Your task to perform on an android device: read, delete, or share a saved page in the chrome app Image 0: 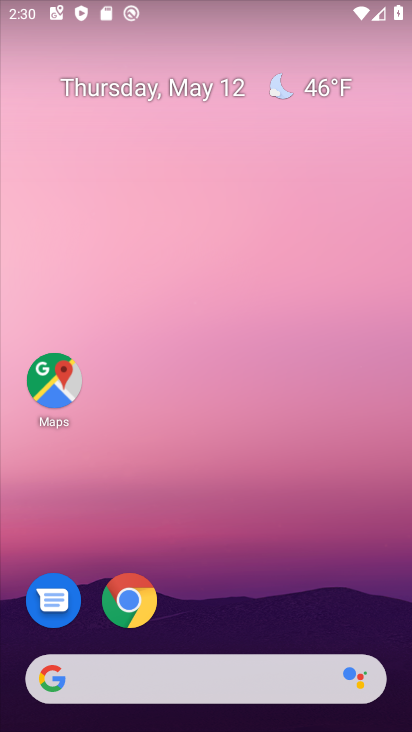
Step 0: click (141, 598)
Your task to perform on an android device: read, delete, or share a saved page in the chrome app Image 1: 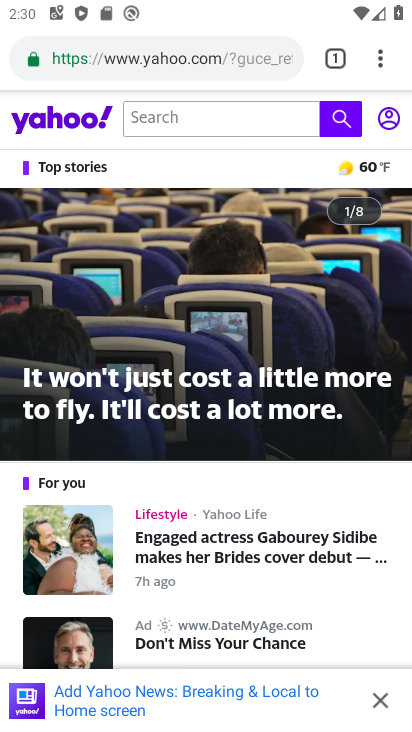
Step 1: click (374, 58)
Your task to perform on an android device: read, delete, or share a saved page in the chrome app Image 2: 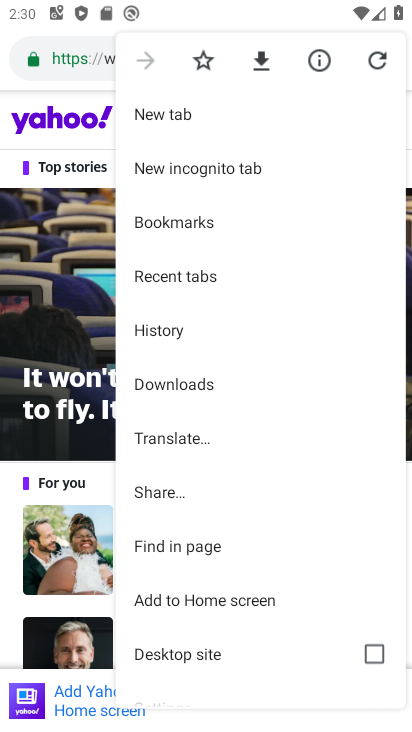
Step 2: drag from (165, 616) to (267, 270)
Your task to perform on an android device: read, delete, or share a saved page in the chrome app Image 3: 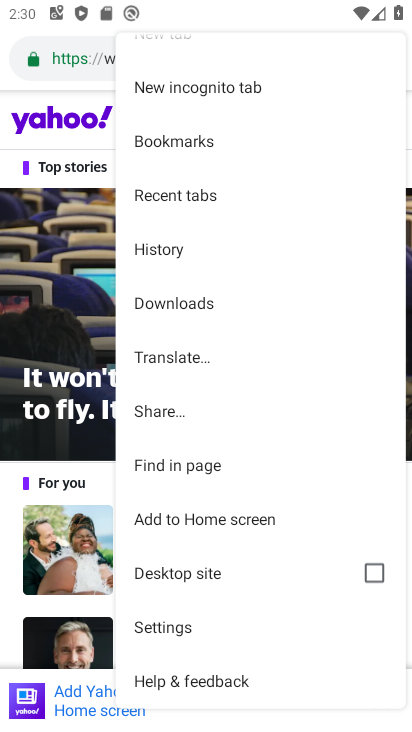
Step 3: click (183, 287)
Your task to perform on an android device: read, delete, or share a saved page in the chrome app Image 4: 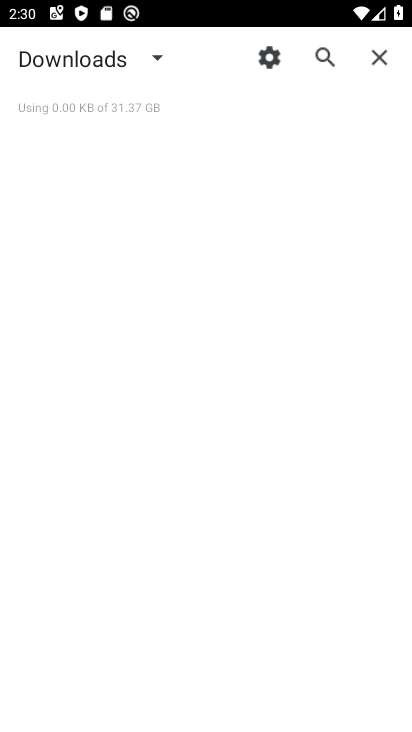
Step 4: task complete